Your task to perform on an android device: show emergency info Image 0: 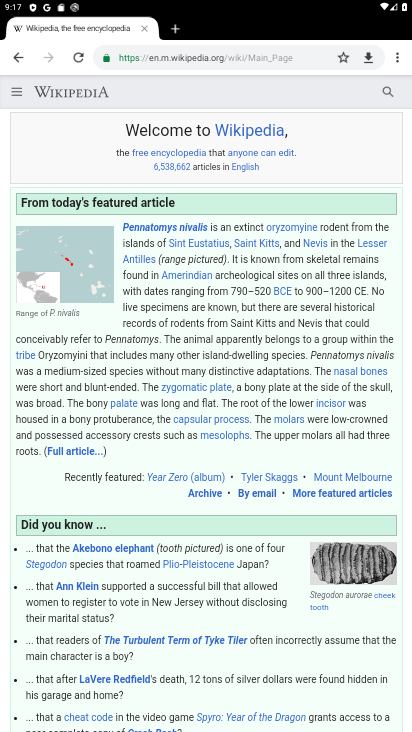
Step 0: press home button
Your task to perform on an android device: show emergency info Image 1: 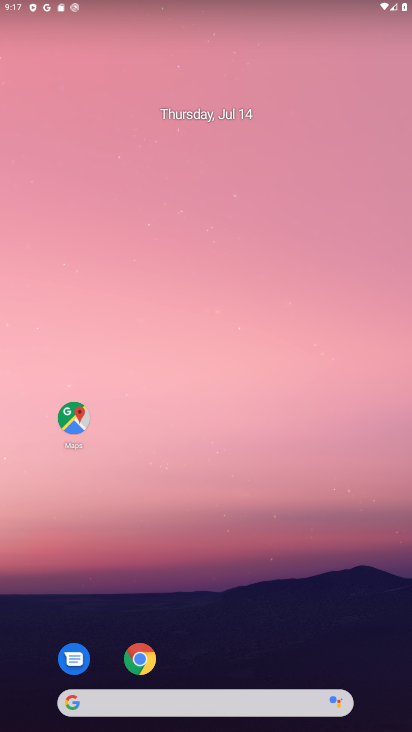
Step 1: drag from (318, 628) to (274, 0)
Your task to perform on an android device: show emergency info Image 2: 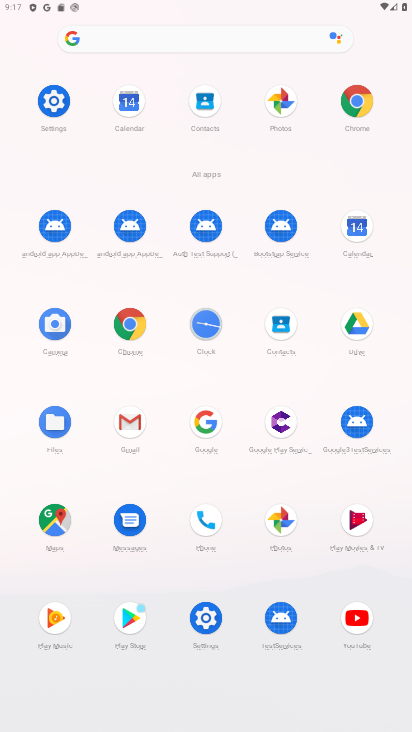
Step 2: click (54, 106)
Your task to perform on an android device: show emergency info Image 3: 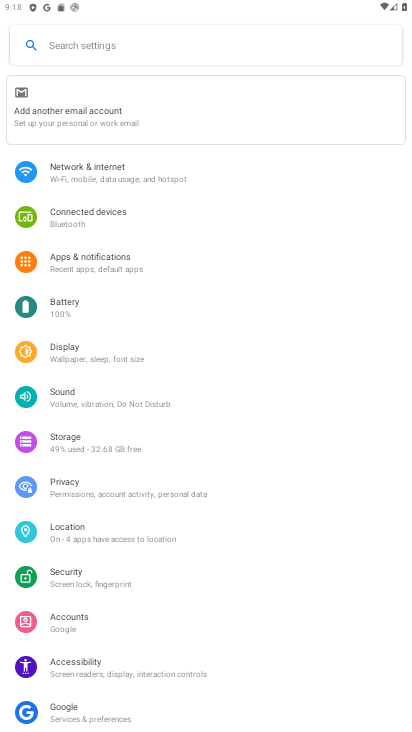
Step 3: drag from (279, 638) to (240, 240)
Your task to perform on an android device: show emergency info Image 4: 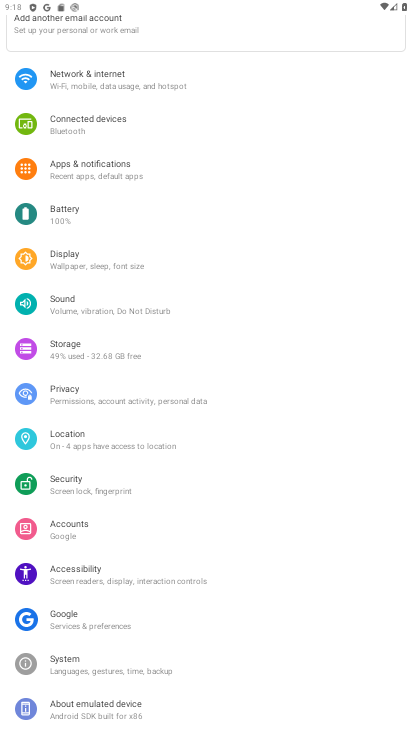
Step 4: click (119, 699)
Your task to perform on an android device: show emergency info Image 5: 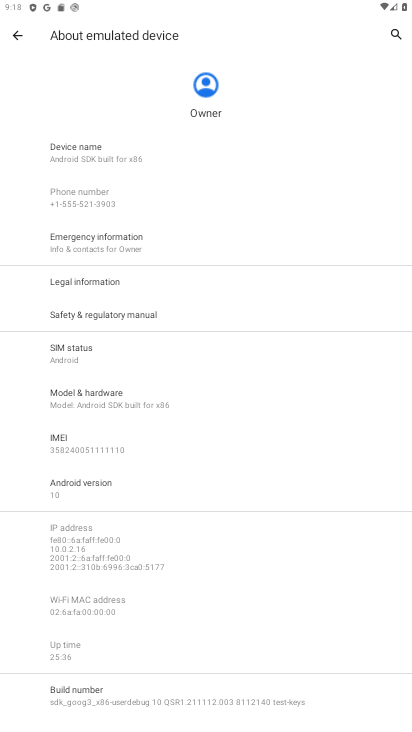
Step 5: click (130, 246)
Your task to perform on an android device: show emergency info Image 6: 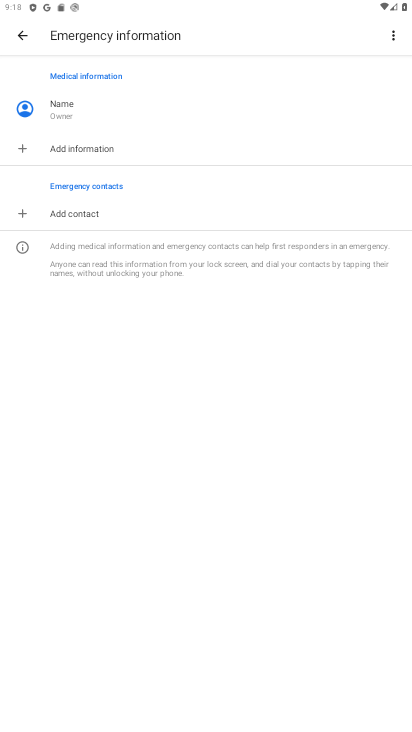
Step 6: task complete